Your task to perform on an android device: When is my next meeting? Image 0: 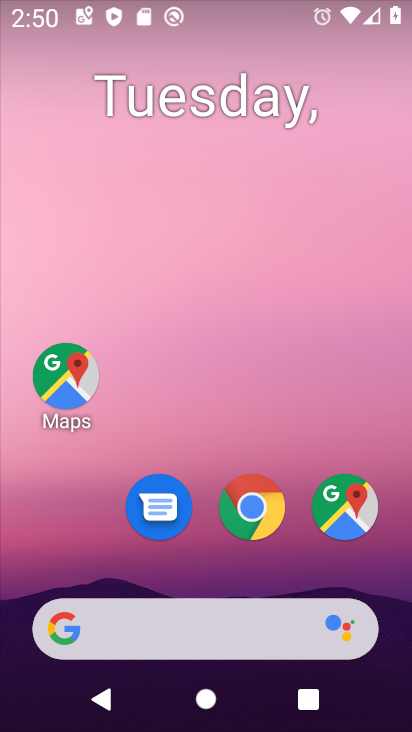
Step 0: drag from (183, 549) to (221, 133)
Your task to perform on an android device: When is my next meeting? Image 1: 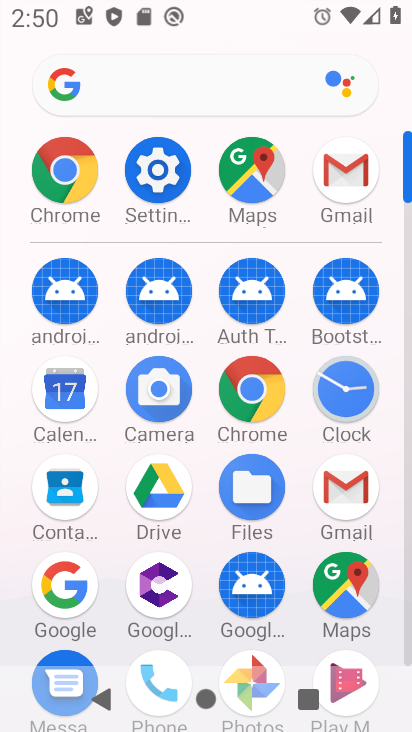
Step 1: click (77, 377)
Your task to perform on an android device: When is my next meeting? Image 2: 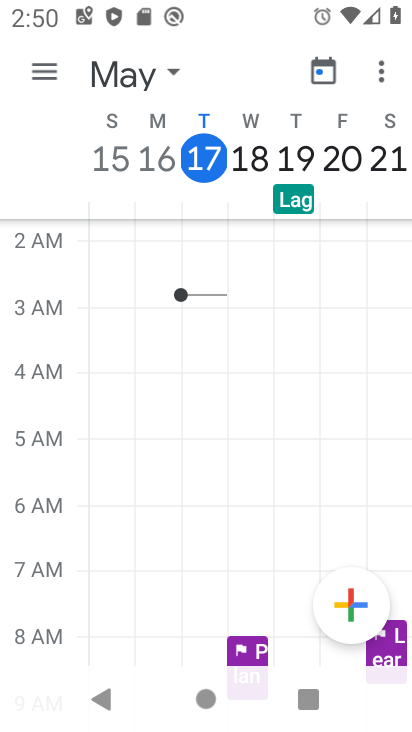
Step 2: click (25, 59)
Your task to perform on an android device: When is my next meeting? Image 3: 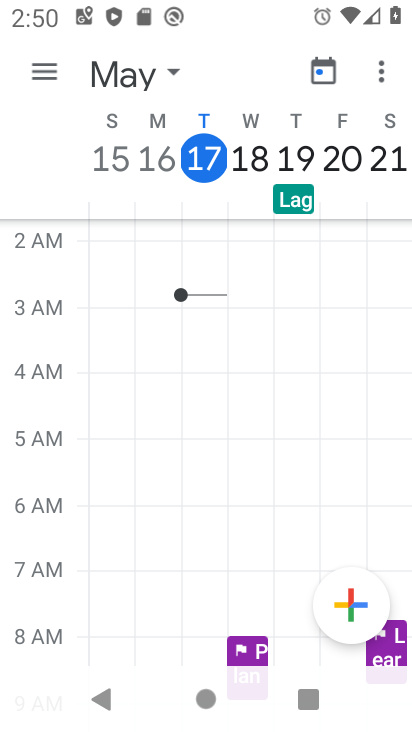
Step 3: click (43, 76)
Your task to perform on an android device: When is my next meeting? Image 4: 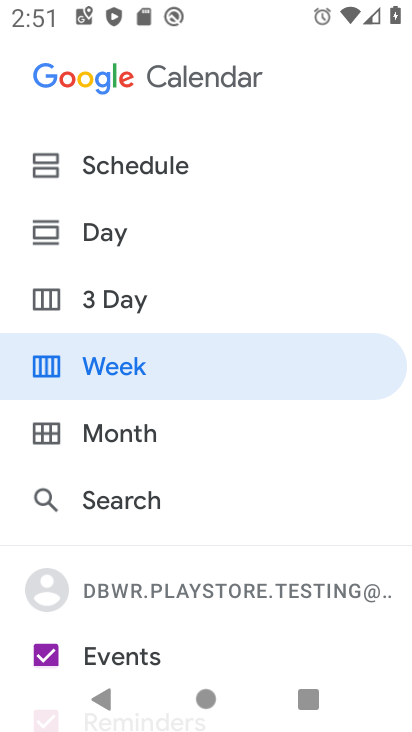
Step 4: click (124, 427)
Your task to perform on an android device: When is my next meeting? Image 5: 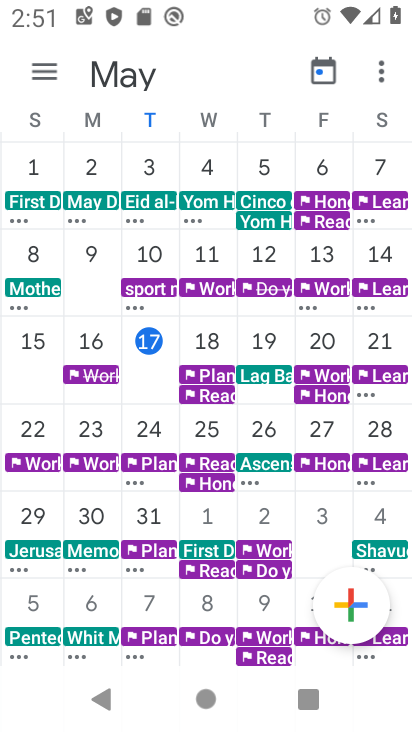
Step 5: click (204, 340)
Your task to perform on an android device: When is my next meeting? Image 6: 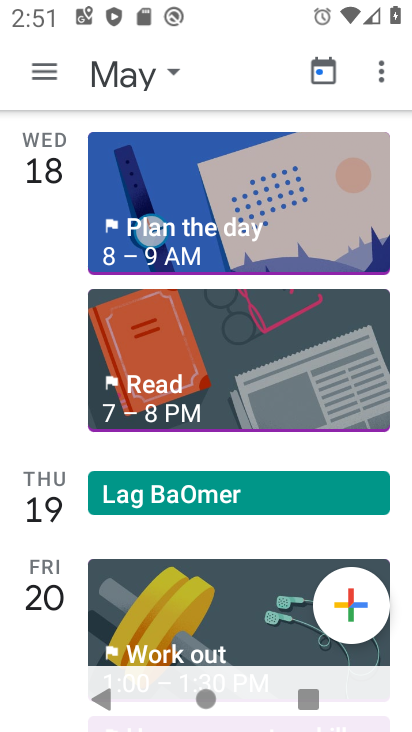
Step 6: task complete